Your task to perform on an android device: change the upload size in google photos Image 0: 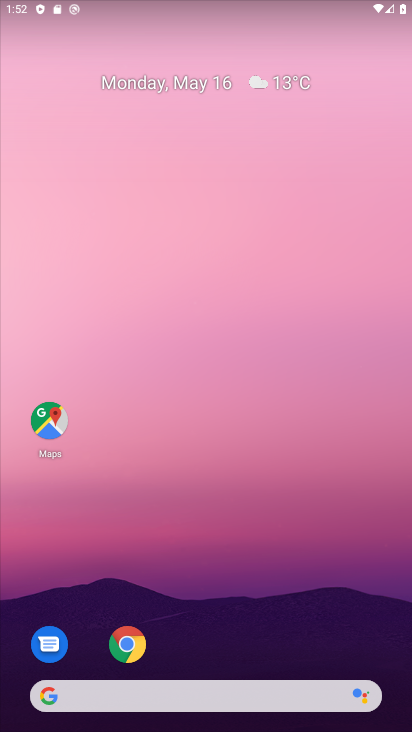
Step 0: drag from (234, 677) to (148, 313)
Your task to perform on an android device: change the upload size in google photos Image 1: 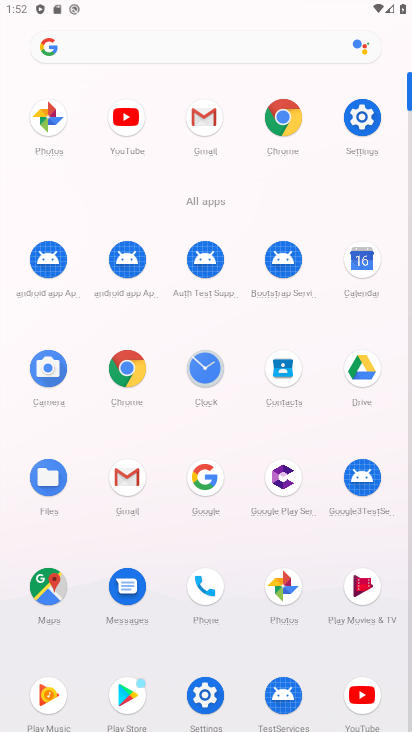
Step 1: click (41, 112)
Your task to perform on an android device: change the upload size in google photos Image 2: 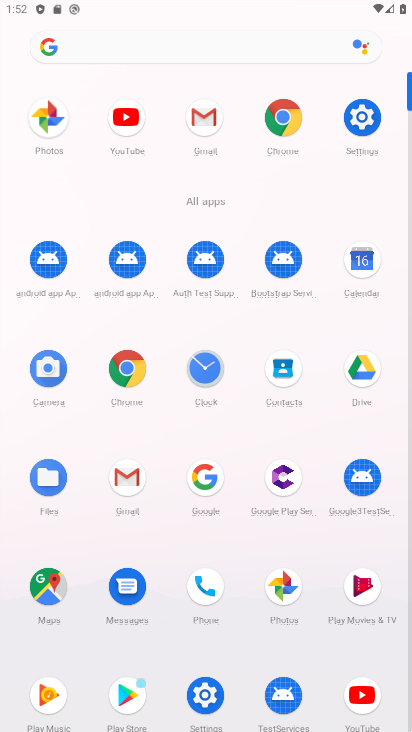
Step 2: click (41, 112)
Your task to perform on an android device: change the upload size in google photos Image 3: 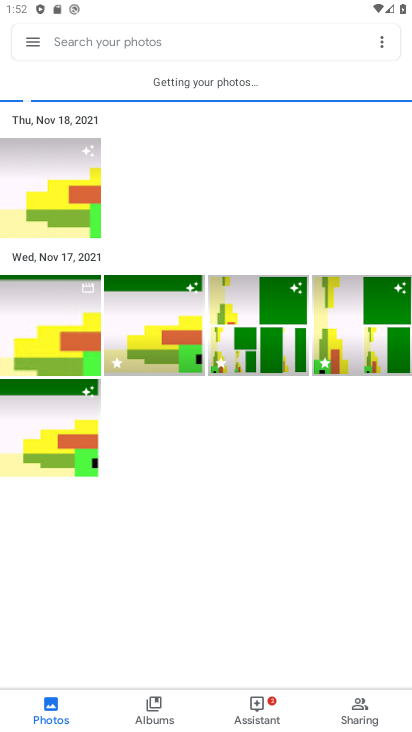
Step 3: click (29, 43)
Your task to perform on an android device: change the upload size in google photos Image 4: 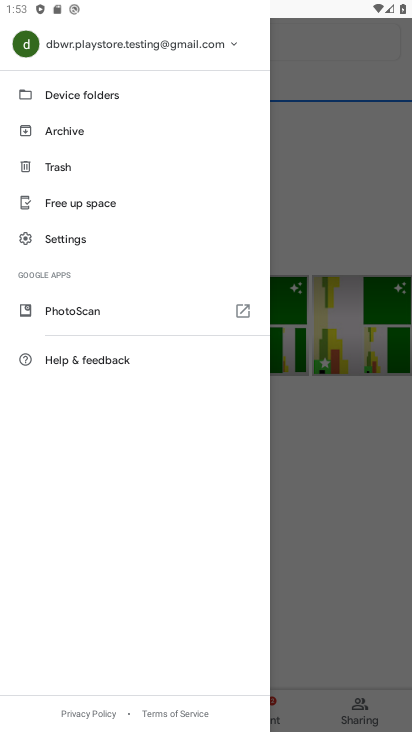
Step 4: click (82, 241)
Your task to perform on an android device: change the upload size in google photos Image 5: 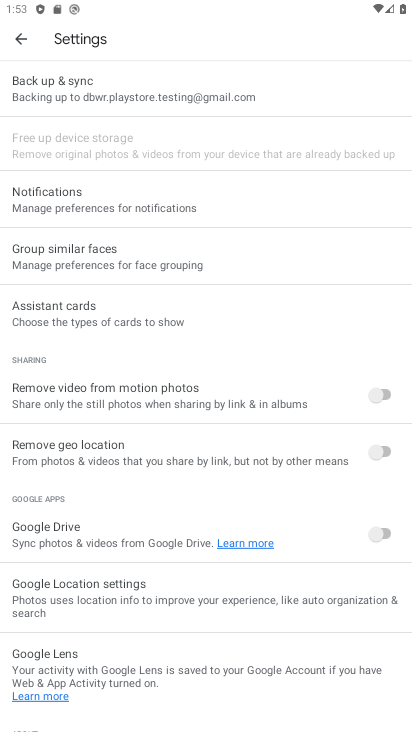
Step 5: drag from (145, 537) to (116, 275)
Your task to perform on an android device: change the upload size in google photos Image 6: 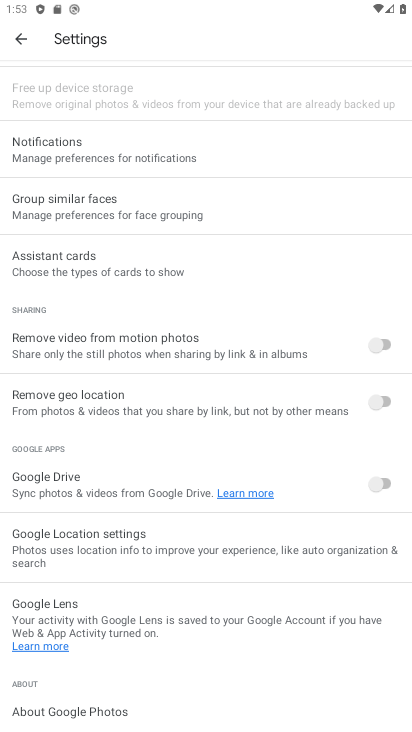
Step 6: drag from (147, 259) to (126, 650)
Your task to perform on an android device: change the upload size in google photos Image 7: 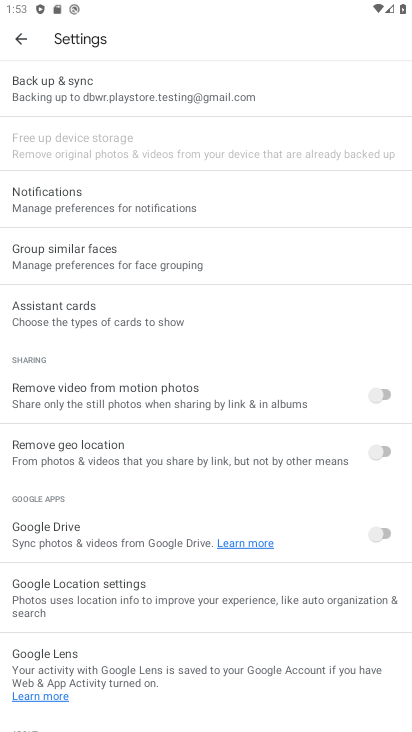
Step 7: click (112, 93)
Your task to perform on an android device: change the upload size in google photos Image 8: 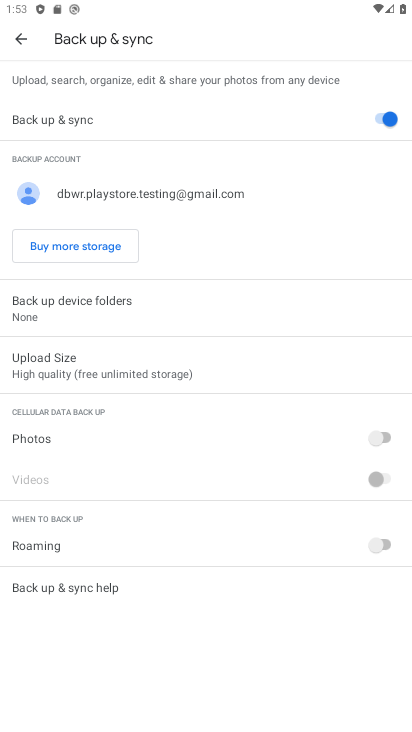
Step 8: click (165, 361)
Your task to perform on an android device: change the upload size in google photos Image 9: 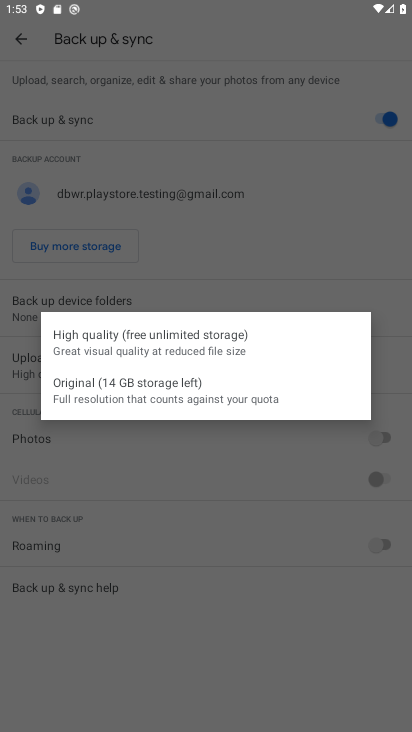
Step 9: click (163, 391)
Your task to perform on an android device: change the upload size in google photos Image 10: 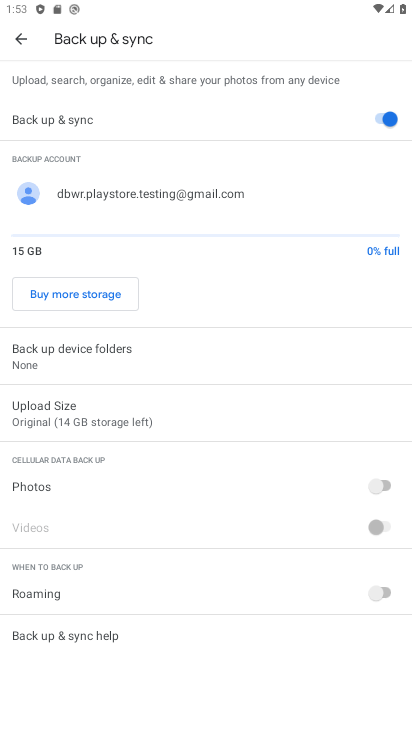
Step 10: task complete